Your task to perform on an android device: toggle data saver in the chrome app Image 0: 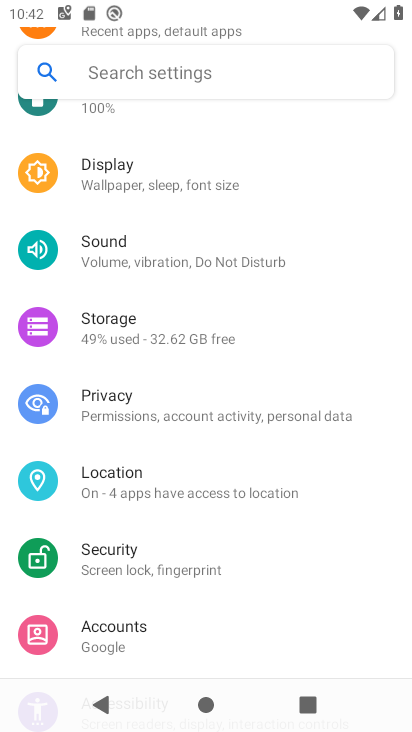
Step 0: drag from (228, 612) to (227, 507)
Your task to perform on an android device: toggle data saver in the chrome app Image 1: 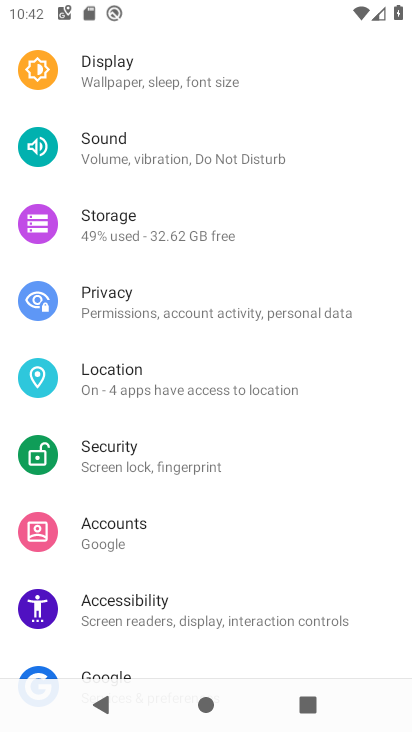
Step 1: press home button
Your task to perform on an android device: toggle data saver in the chrome app Image 2: 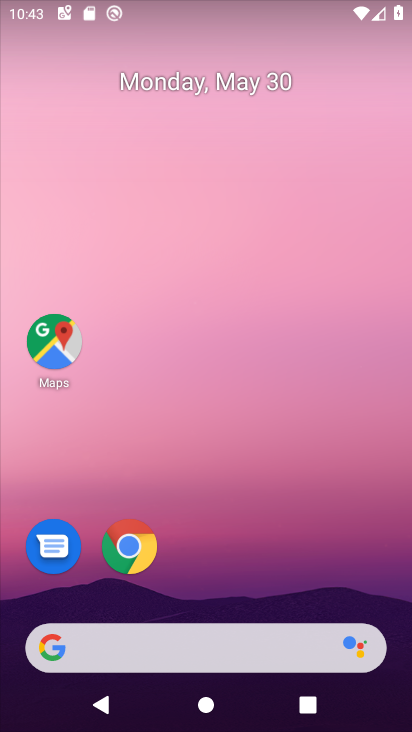
Step 2: click (140, 542)
Your task to perform on an android device: toggle data saver in the chrome app Image 3: 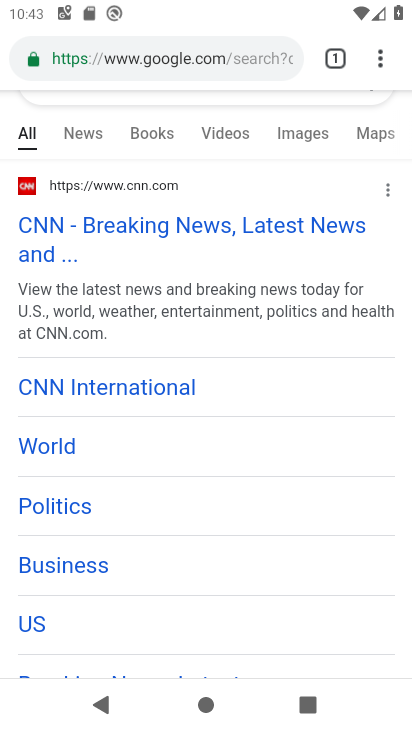
Step 3: click (376, 62)
Your task to perform on an android device: toggle data saver in the chrome app Image 4: 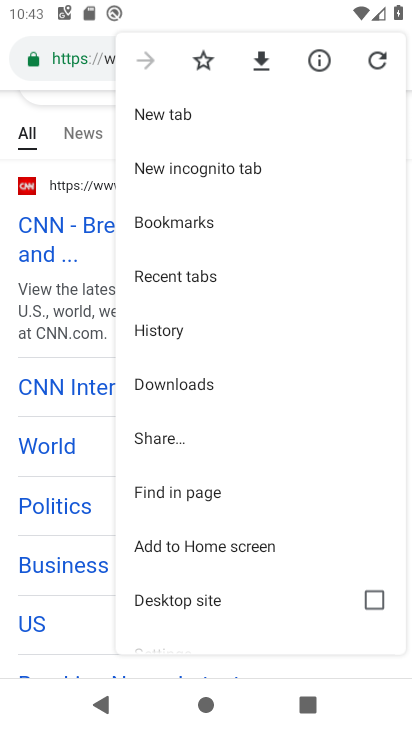
Step 4: drag from (189, 583) to (199, 441)
Your task to perform on an android device: toggle data saver in the chrome app Image 5: 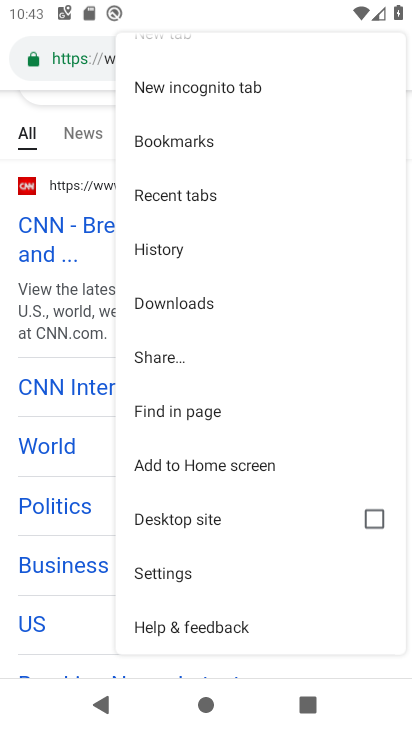
Step 5: click (172, 572)
Your task to perform on an android device: toggle data saver in the chrome app Image 6: 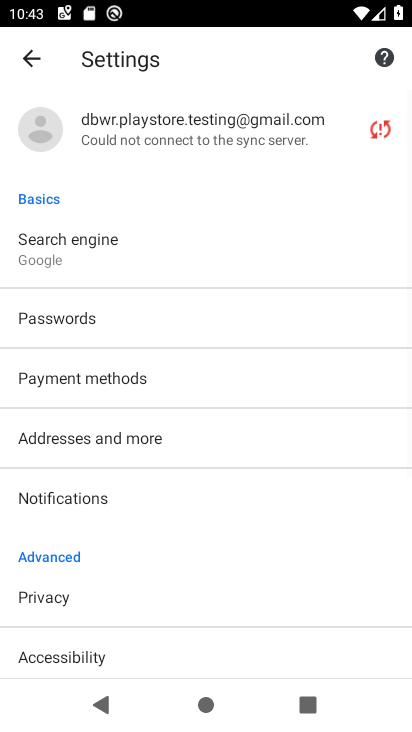
Step 6: drag from (100, 570) to (136, 382)
Your task to perform on an android device: toggle data saver in the chrome app Image 7: 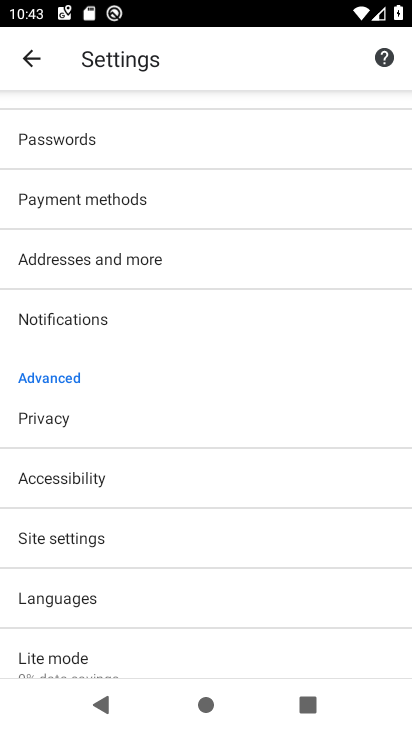
Step 7: click (53, 657)
Your task to perform on an android device: toggle data saver in the chrome app Image 8: 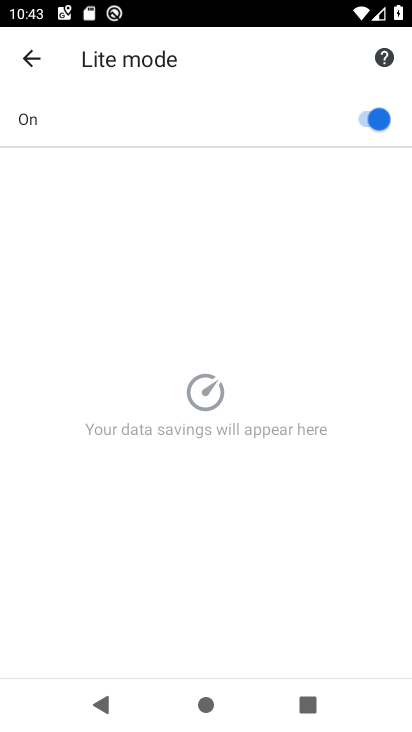
Step 8: click (326, 119)
Your task to perform on an android device: toggle data saver in the chrome app Image 9: 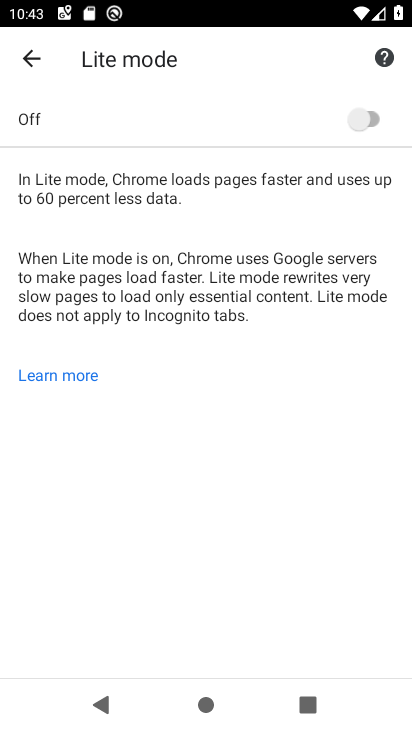
Step 9: task complete